Your task to perform on an android device: Go to Reddit.com Image 0: 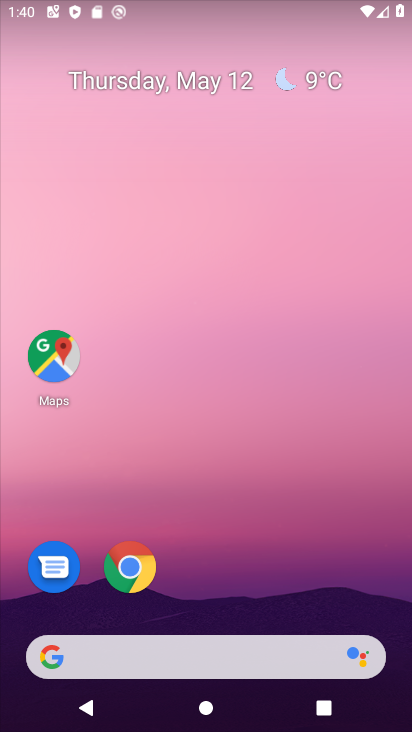
Step 0: drag from (224, 588) to (233, 54)
Your task to perform on an android device: Go to Reddit.com Image 1: 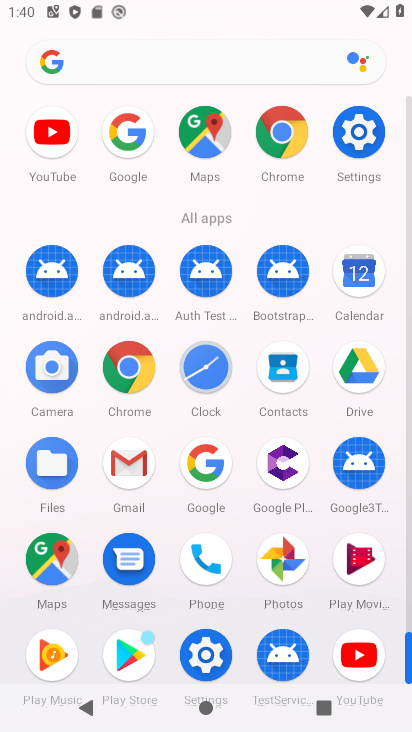
Step 1: click (283, 156)
Your task to perform on an android device: Go to Reddit.com Image 2: 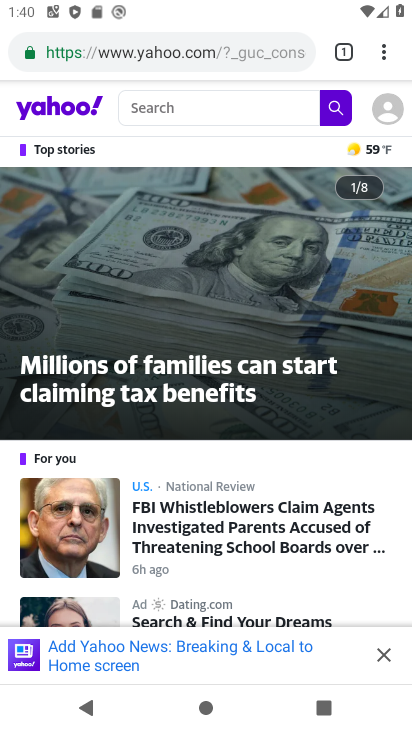
Step 2: click (211, 47)
Your task to perform on an android device: Go to Reddit.com Image 3: 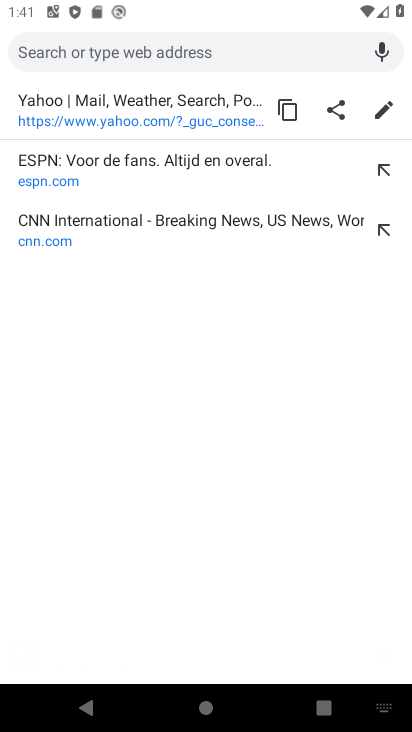
Step 3: type "www.reddit.com"
Your task to perform on an android device: Go to Reddit.com Image 4: 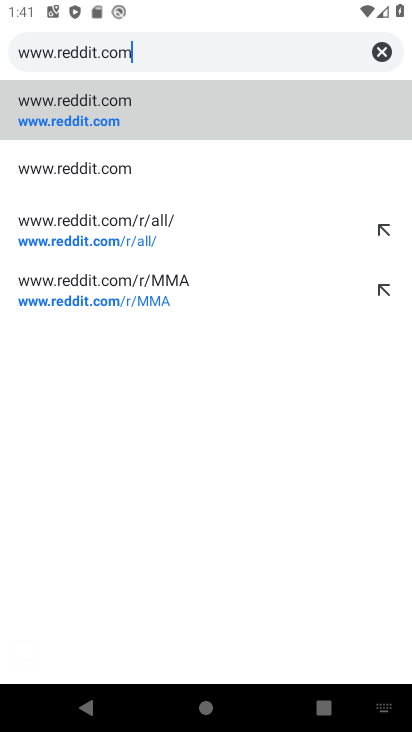
Step 4: click (96, 112)
Your task to perform on an android device: Go to Reddit.com Image 5: 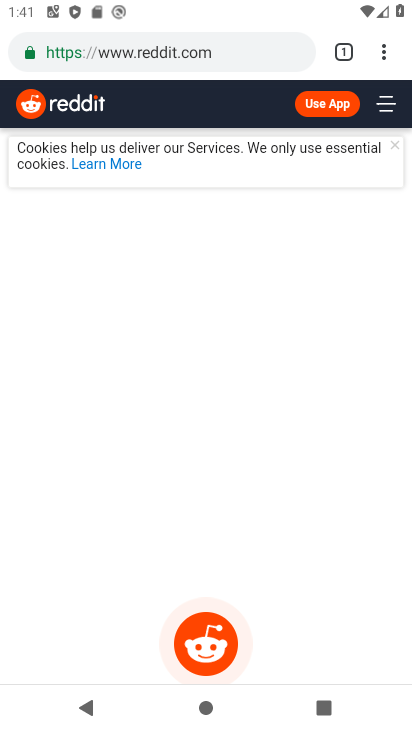
Step 5: task complete